Your task to perform on an android device: delete a single message in the gmail app Image 0: 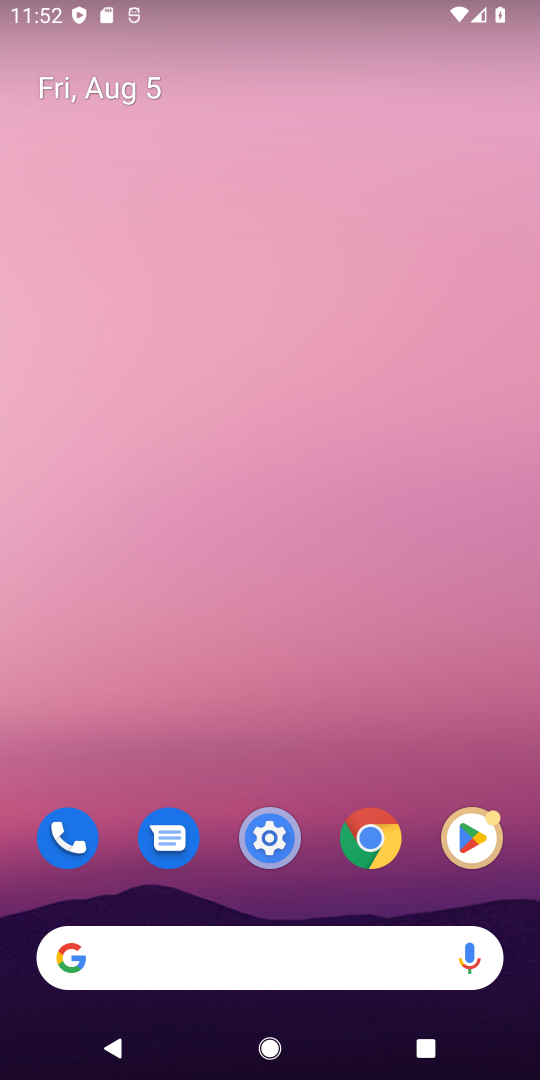
Step 0: press home button
Your task to perform on an android device: delete a single message in the gmail app Image 1: 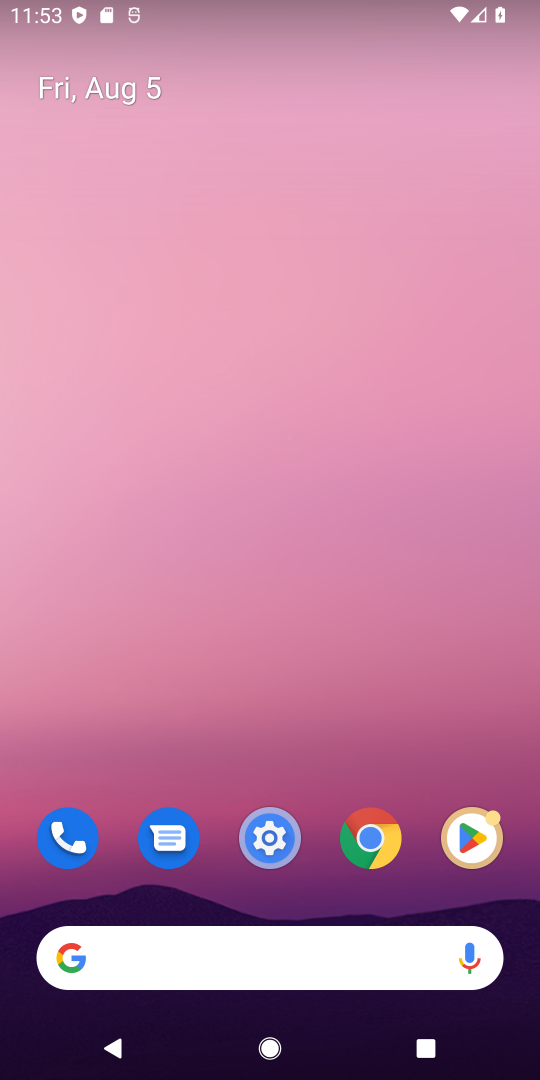
Step 1: drag from (271, 895) to (326, 107)
Your task to perform on an android device: delete a single message in the gmail app Image 2: 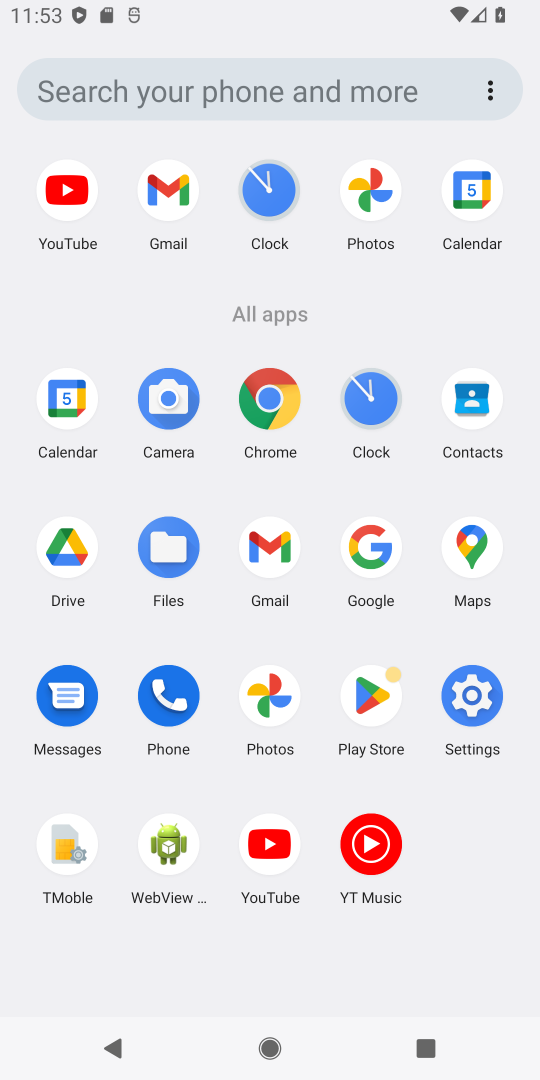
Step 2: click (263, 544)
Your task to perform on an android device: delete a single message in the gmail app Image 3: 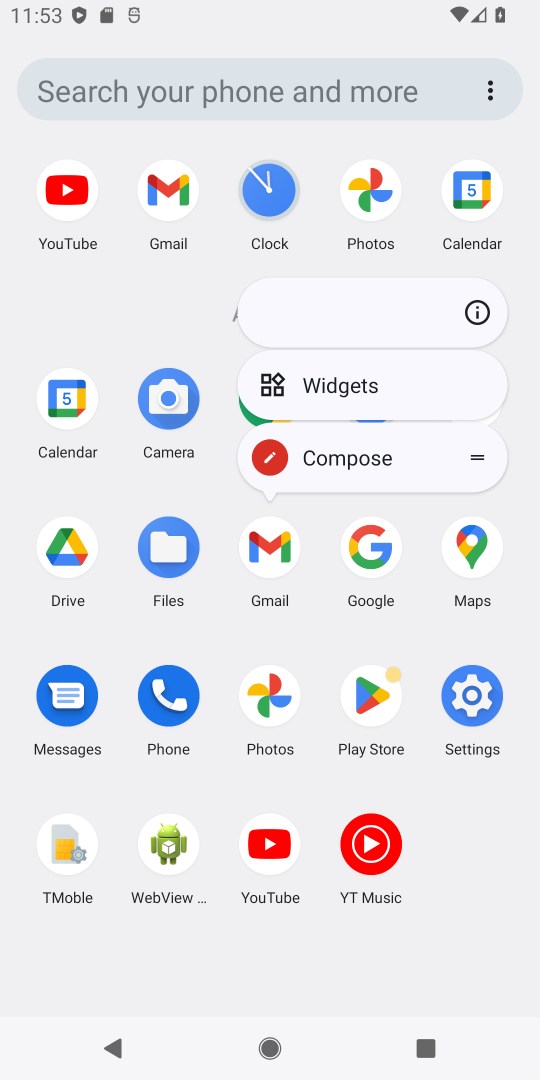
Step 3: click (259, 555)
Your task to perform on an android device: delete a single message in the gmail app Image 4: 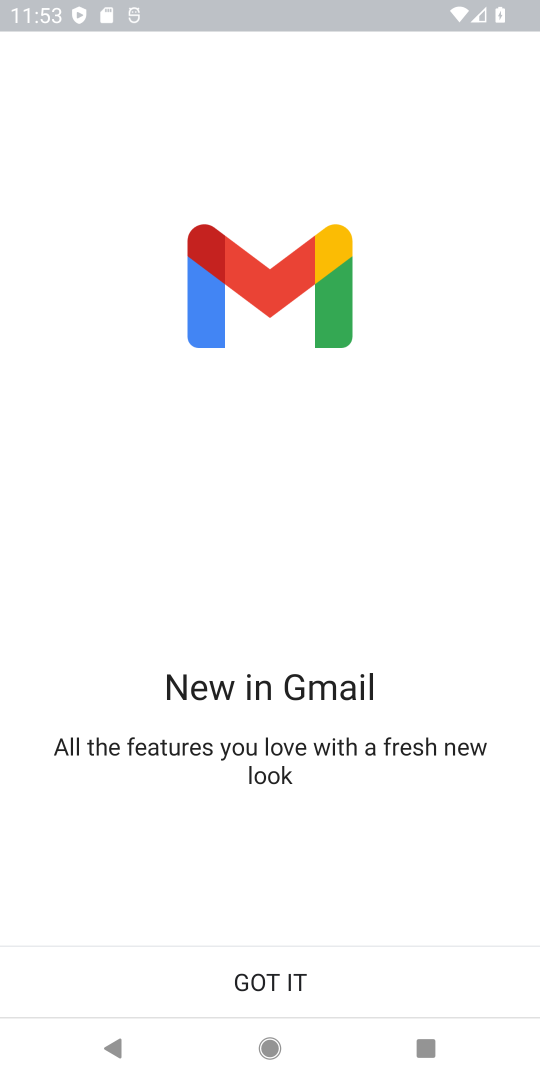
Step 4: click (232, 976)
Your task to perform on an android device: delete a single message in the gmail app Image 5: 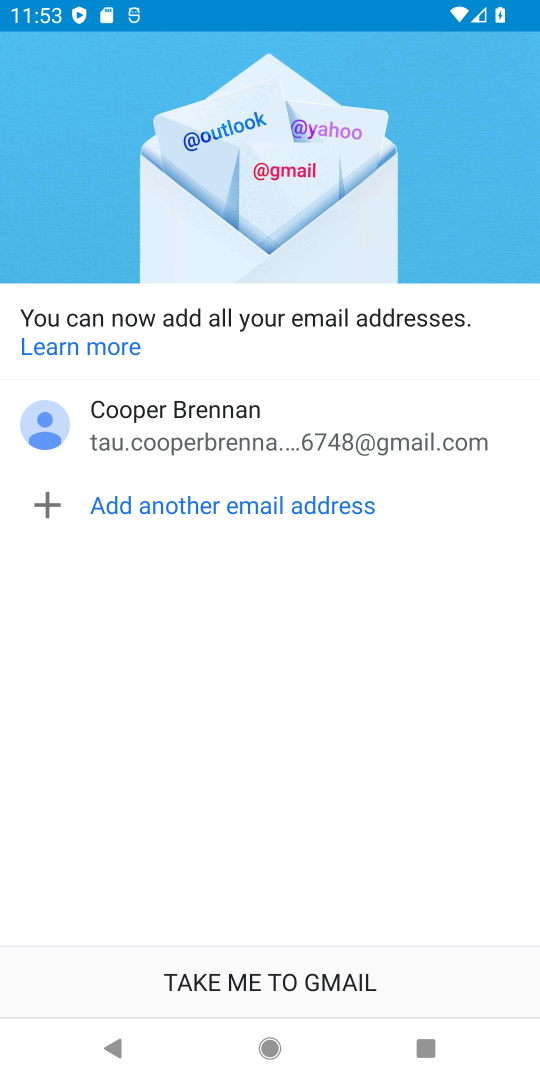
Step 5: click (232, 976)
Your task to perform on an android device: delete a single message in the gmail app Image 6: 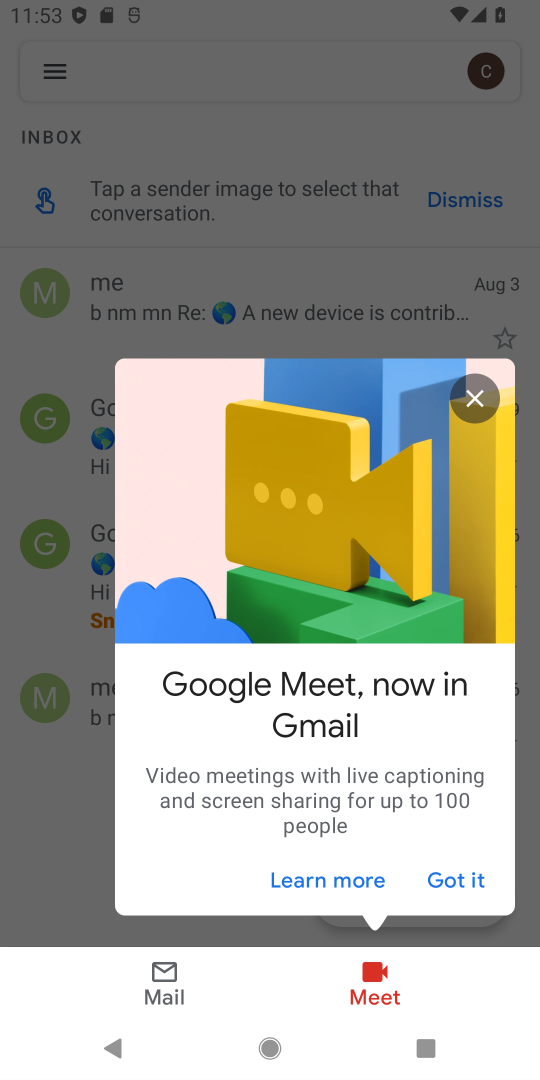
Step 6: click (479, 395)
Your task to perform on an android device: delete a single message in the gmail app Image 7: 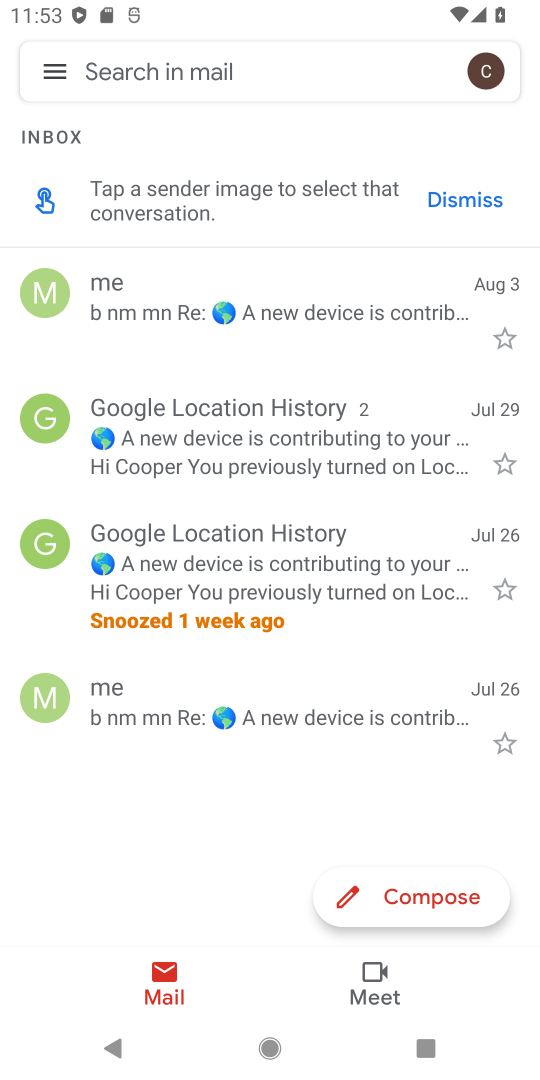
Step 7: click (251, 282)
Your task to perform on an android device: delete a single message in the gmail app Image 8: 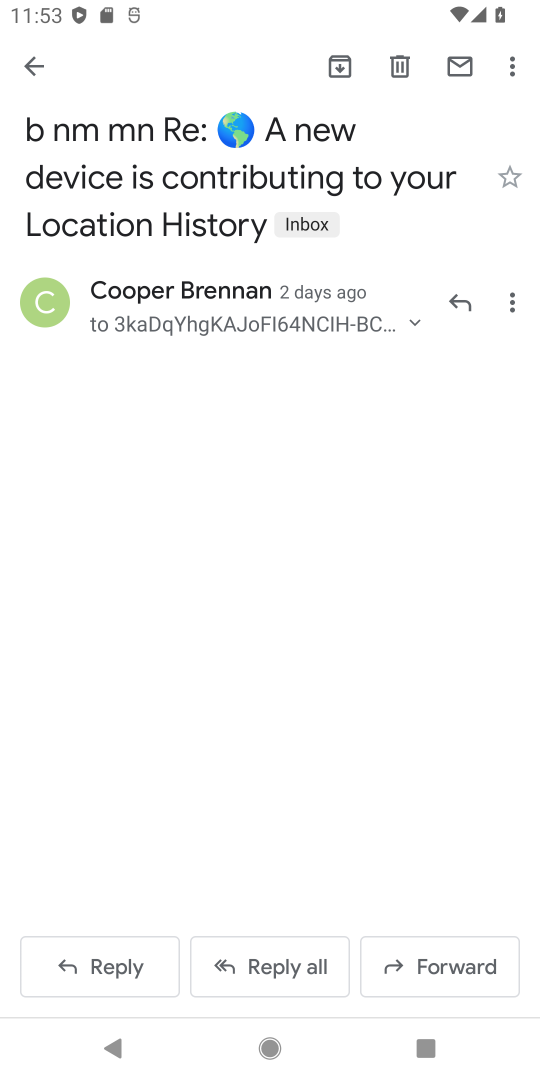
Step 8: click (403, 57)
Your task to perform on an android device: delete a single message in the gmail app Image 9: 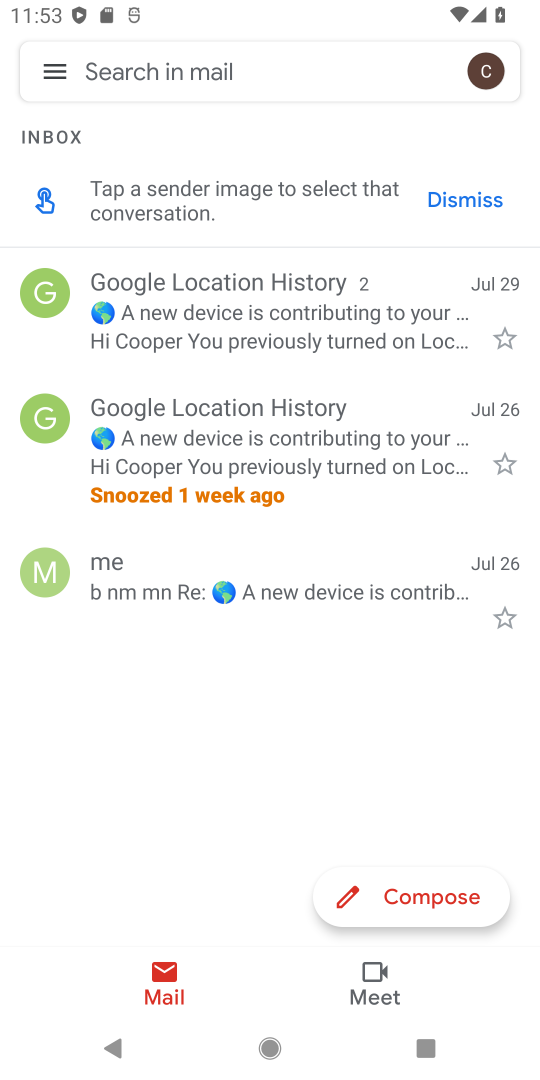
Step 9: task complete